Your task to perform on an android device: Open settings Image 0: 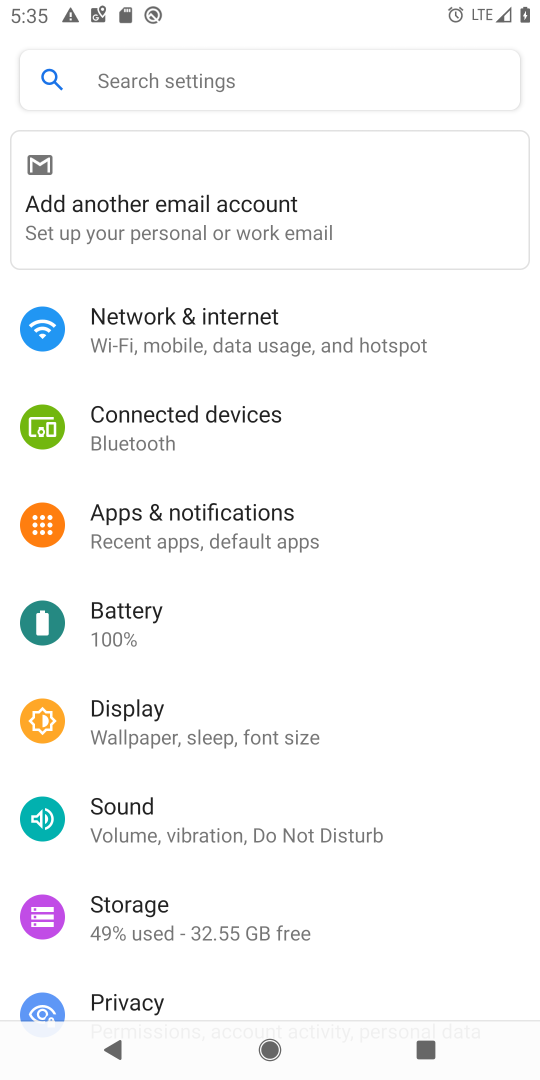
Step 0: press back button
Your task to perform on an android device: Open settings Image 1: 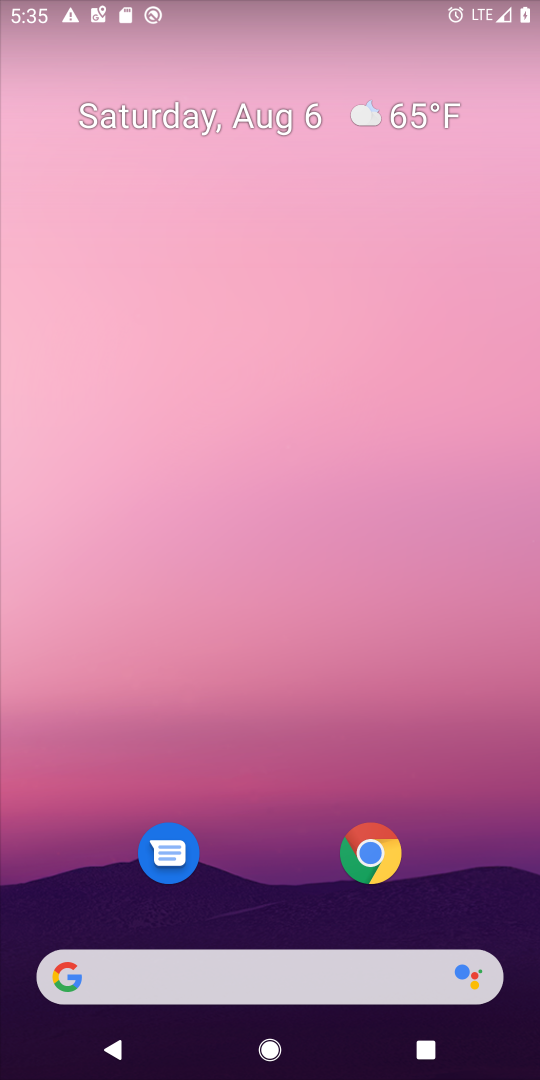
Step 1: drag from (242, 877) to (305, 230)
Your task to perform on an android device: Open settings Image 2: 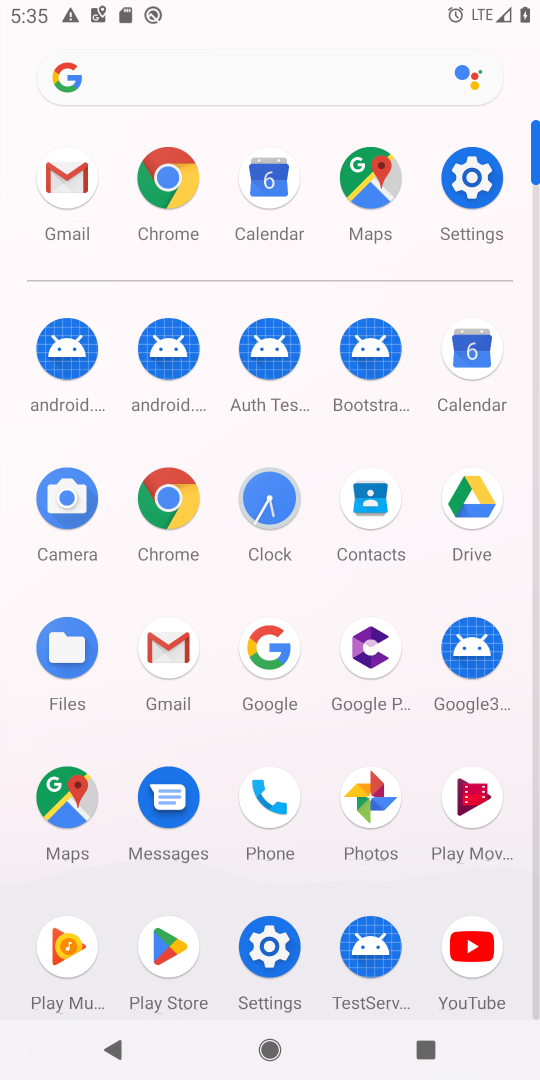
Step 2: click (465, 187)
Your task to perform on an android device: Open settings Image 3: 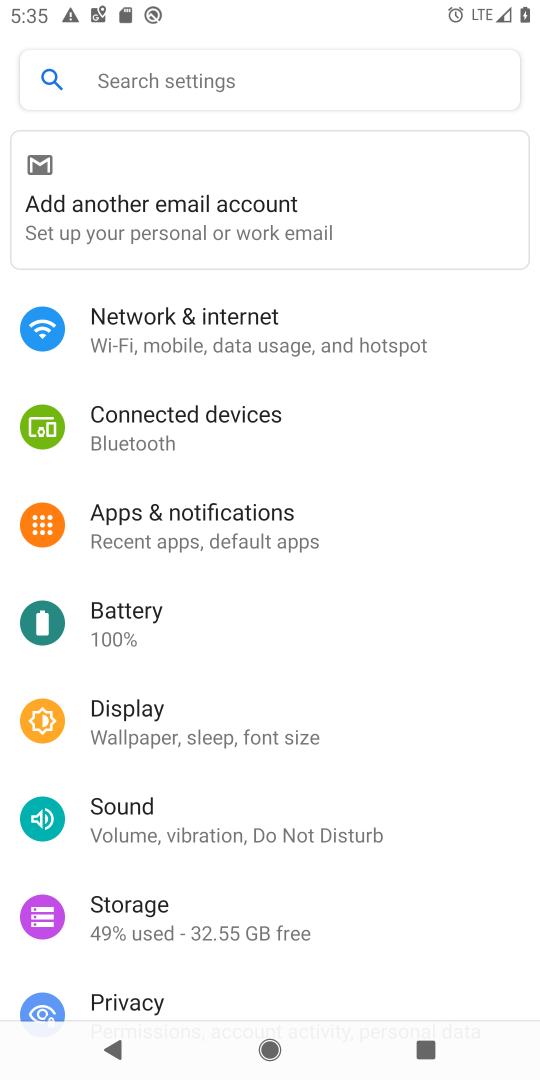
Step 3: task complete